Your task to perform on an android device: What's the weather going to be this weekend? Image 0: 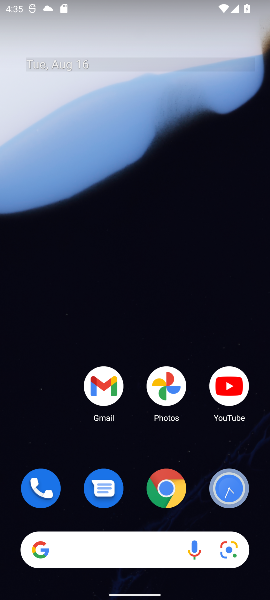
Step 0: drag from (111, 342) to (148, 135)
Your task to perform on an android device: What's the weather going to be this weekend? Image 1: 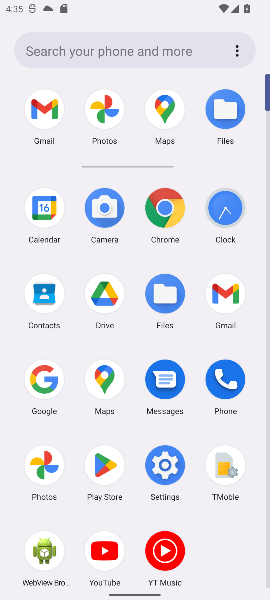
Step 1: click (39, 203)
Your task to perform on an android device: What's the weather going to be this weekend? Image 2: 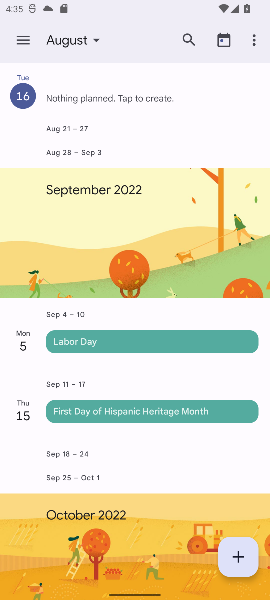
Step 2: task complete